Your task to perform on an android device: open sync settings in chrome Image 0: 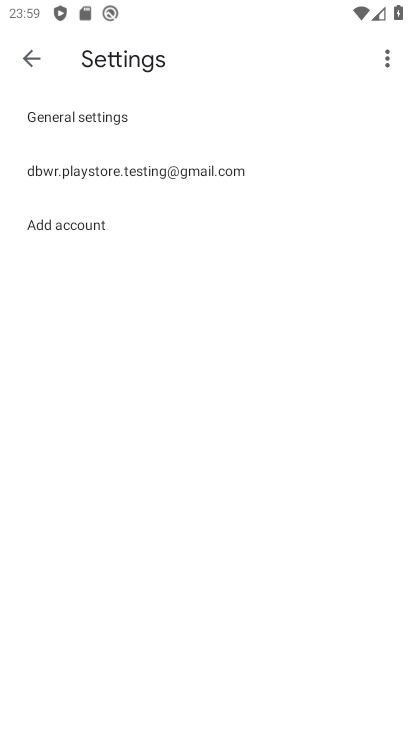
Step 0: press home button
Your task to perform on an android device: open sync settings in chrome Image 1: 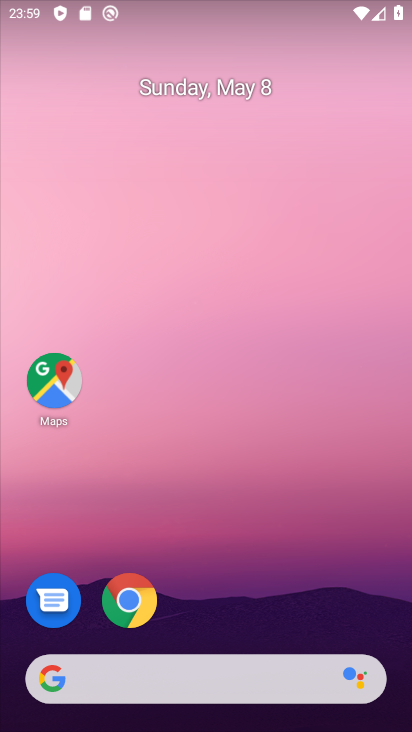
Step 1: click (139, 603)
Your task to perform on an android device: open sync settings in chrome Image 2: 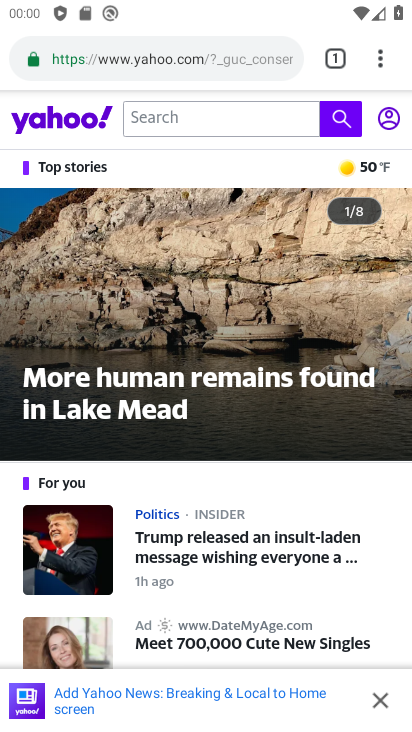
Step 2: drag from (386, 67) to (228, 631)
Your task to perform on an android device: open sync settings in chrome Image 3: 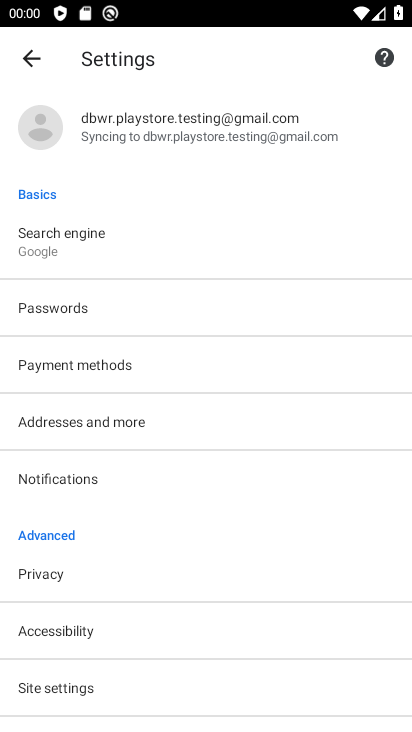
Step 3: click (226, 132)
Your task to perform on an android device: open sync settings in chrome Image 4: 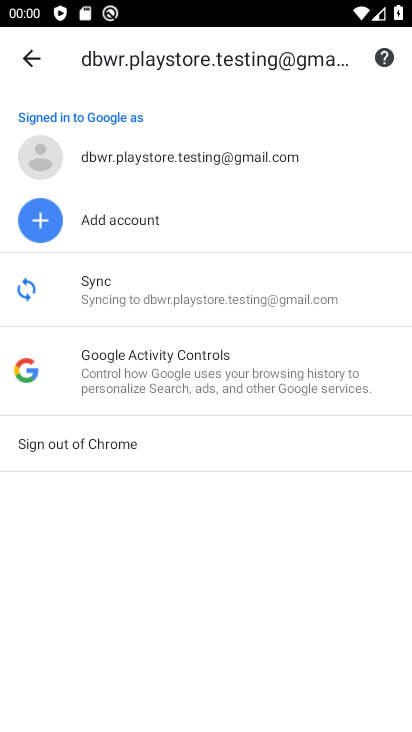
Step 4: click (172, 285)
Your task to perform on an android device: open sync settings in chrome Image 5: 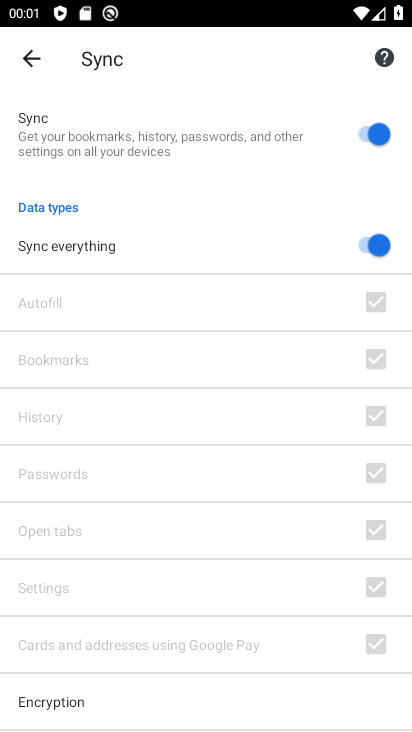
Step 5: task complete